Your task to perform on an android device: turn off priority inbox in the gmail app Image 0: 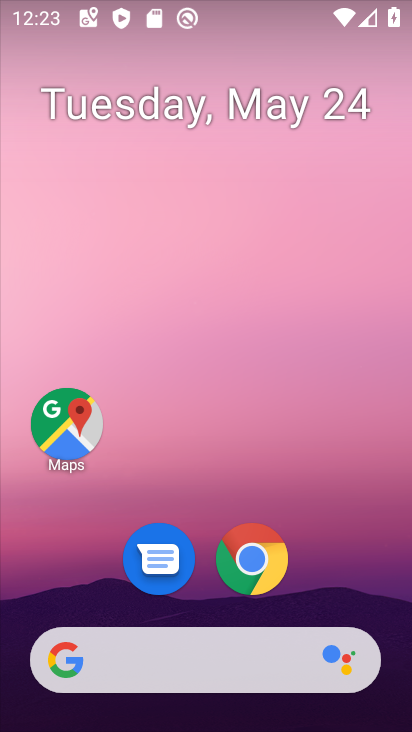
Step 0: drag from (233, 536) to (79, 147)
Your task to perform on an android device: turn off priority inbox in the gmail app Image 1: 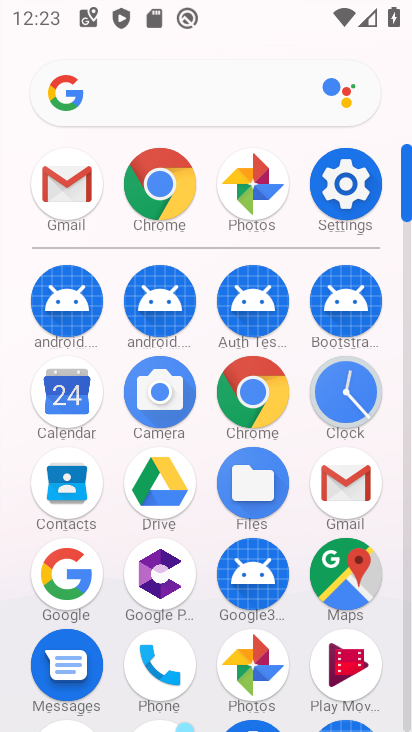
Step 1: click (329, 483)
Your task to perform on an android device: turn off priority inbox in the gmail app Image 2: 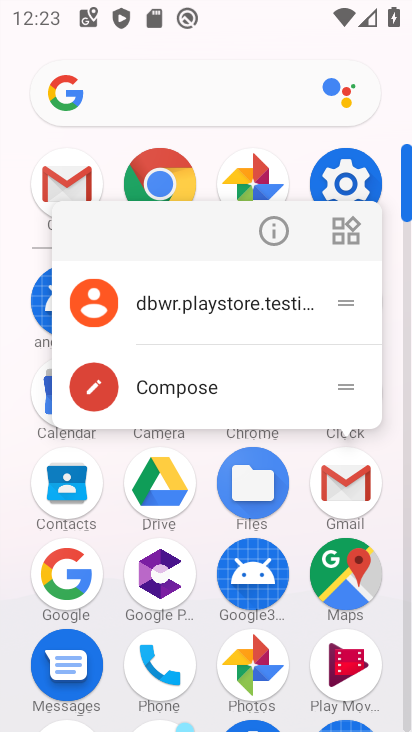
Step 2: click (336, 483)
Your task to perform on an android device: turn off priority inbox in the gmail app Image 3: 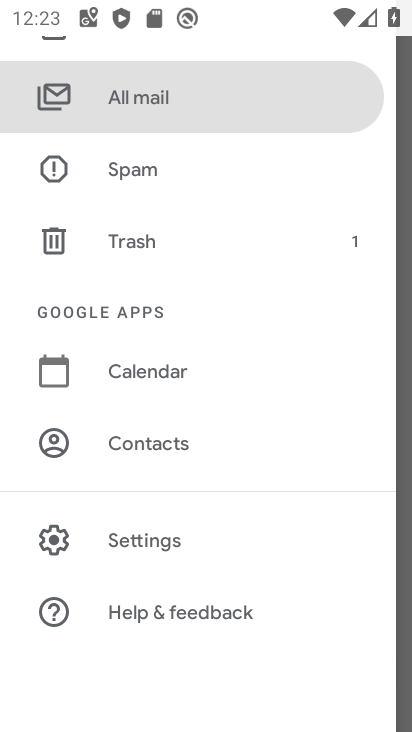
Step 3: click (131, 537)
Your task to perform on an android device: turn off priority inbox in the gmail app Image 4: 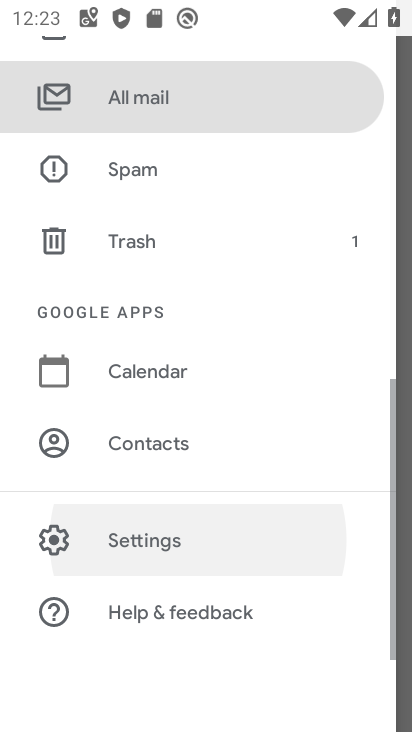
Step 4: click (131, 537)
Your task to perform on an android device: turn off priority inbox in the gmail app Image 5: 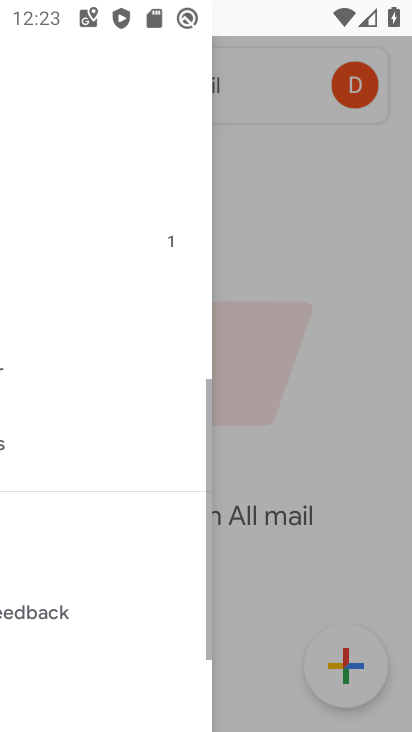
Step 5: click (131, 537)
Your task to perform on an android device: turn off priority inbox in the gmail app Image 6: 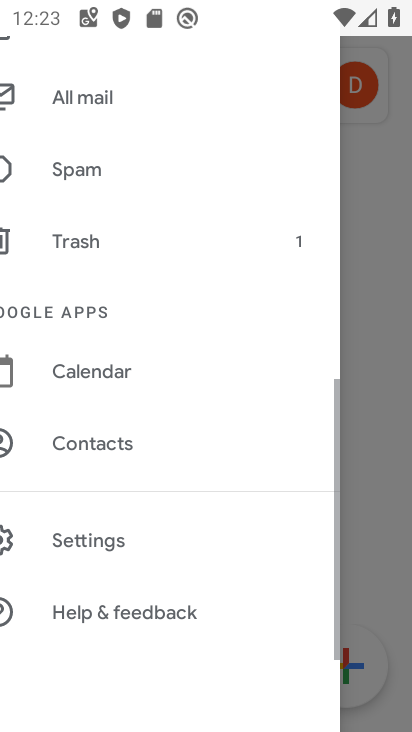
Step 6: click (131, 537)
Your task to perform on an android device: turn off priority inbox in the gmail app Image 7: 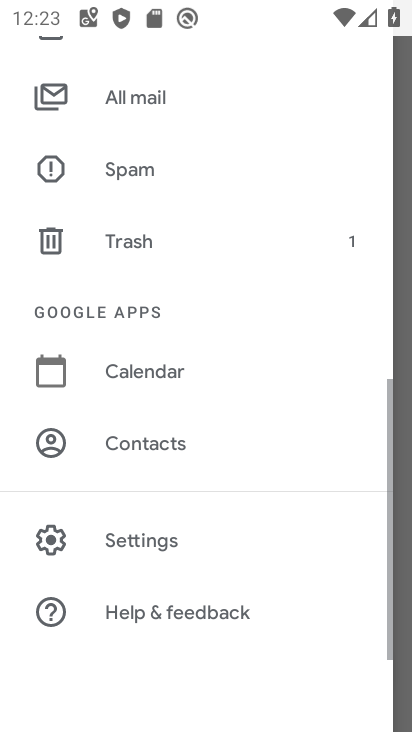
Step 7: click (131, 537)
Your task to perform on an android device: turn off priority inbox in the gmail app Image 8: 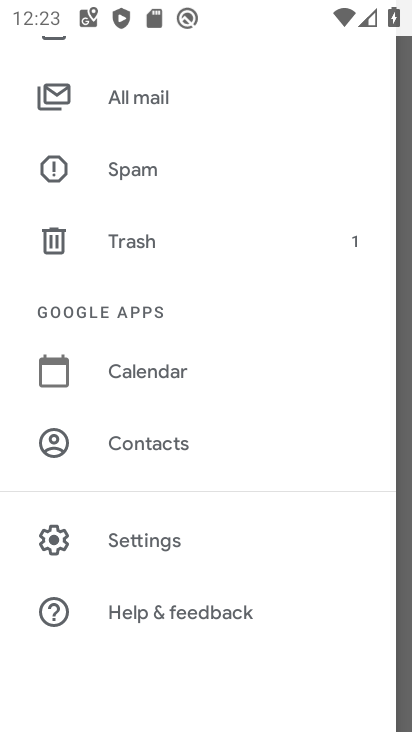
Step 8: click (145, 538)
Your task to perform on an android device: turn off priority inbox in the gmail app Image 9: 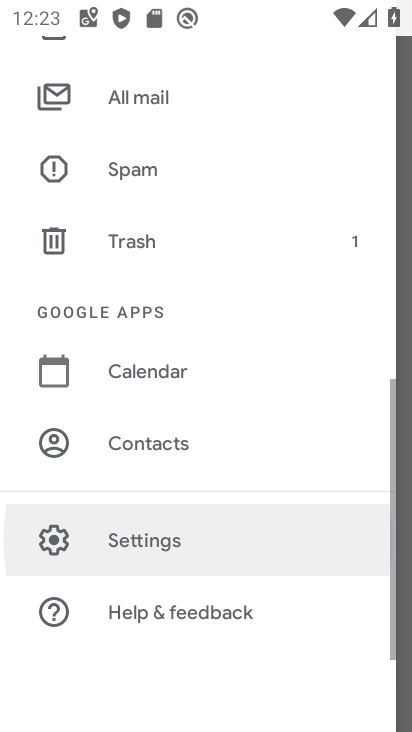
Step 9: click (145, 538)
Your task to perform on an android device: turn off priority inbox in the gmail app Image 10: 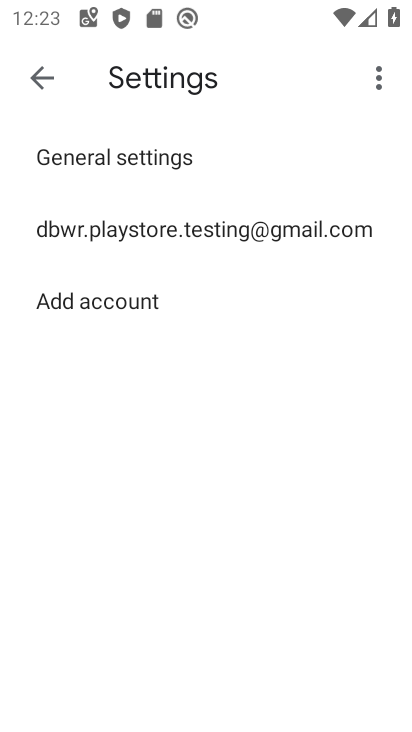
Step 10: click (151, 239)
Your task to perform on an android device: turn off priority inbox in the gmail app Image 11: 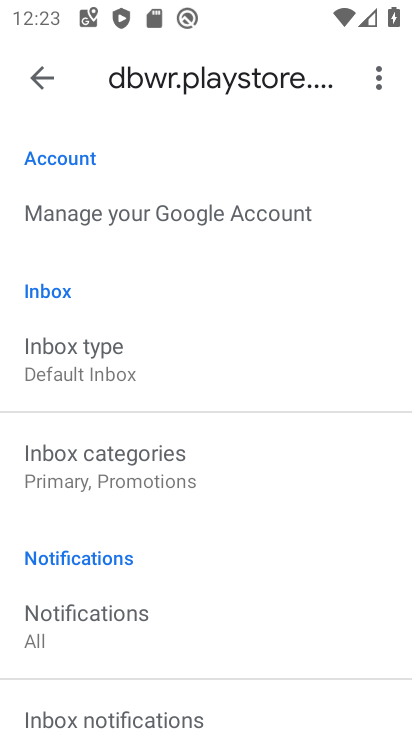
Step 11: drag from (118, 579) to (78, 269)
Your task to perform on an android device: turn off priority inbox in the gmail app Image 12: 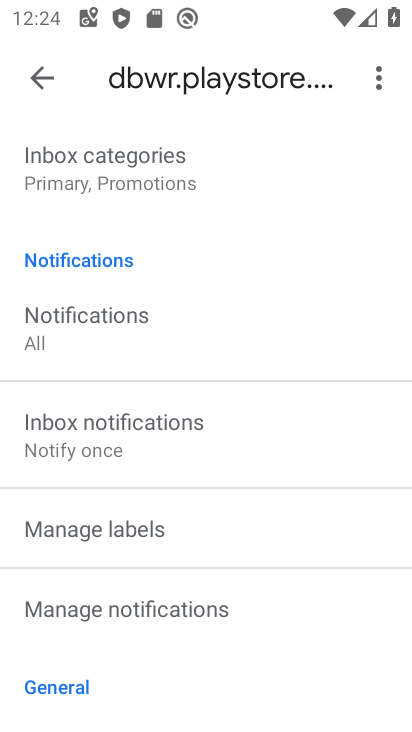
Step 12: drag from (114, 280) to (116, 605)
Your task to perform on an android device: turn off priority inbox in the gmail app Image 13: 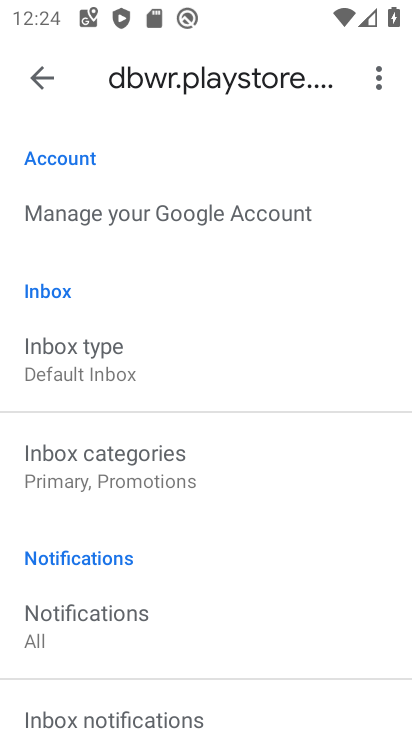
Step 13: click (75, 362)
Your task to perform on an android device: turn off priority inbox in the gmail app Image 14: 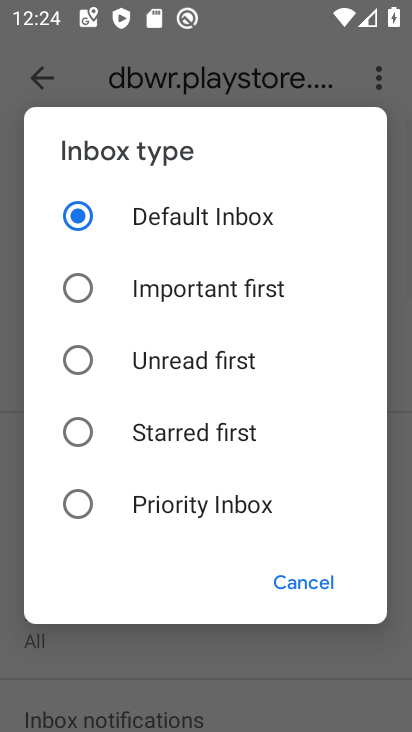
Step 14: click (89, 497)
Your task to perform on an android device: turn off priority inbox in the gmail app Image 15: 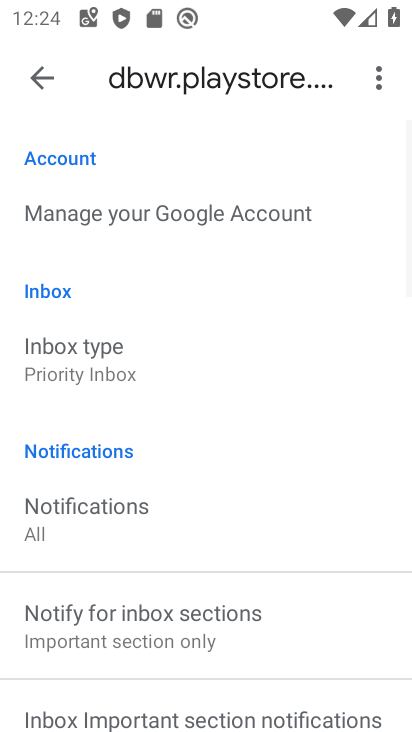
Step 15: task complete